Your task to perform on an android device: Open Yahoo.com Image 0: 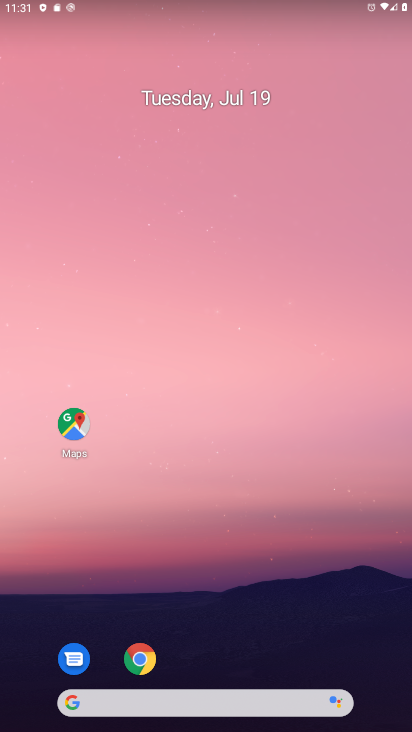
Step 0: press home button
Your task to perform on an android device: Open Yahoo.com Image 1: 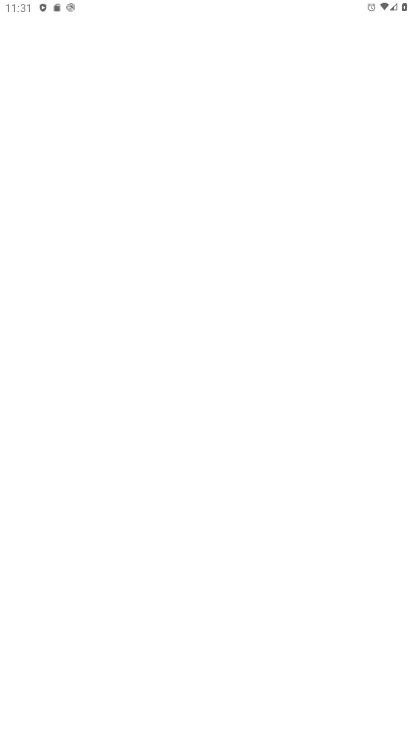
Step 1: drag from (220, 665) to (248, 321)
Your task to perform on an android device: Open Yahoo.com Image 2: 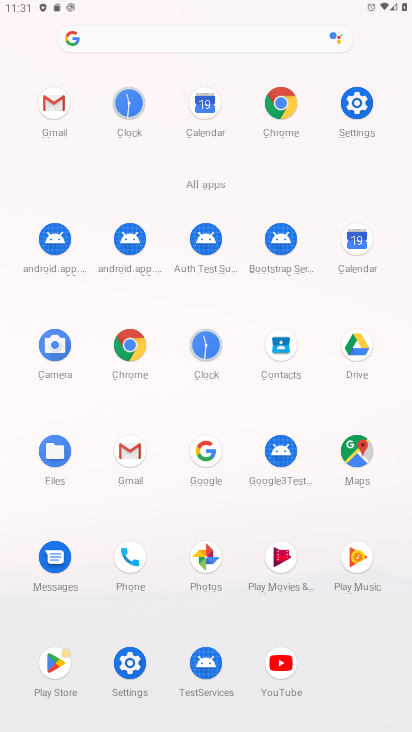
Step 2: click (126, 341)
Your task to perform on an android device: Open Yahoo.com Image 3: 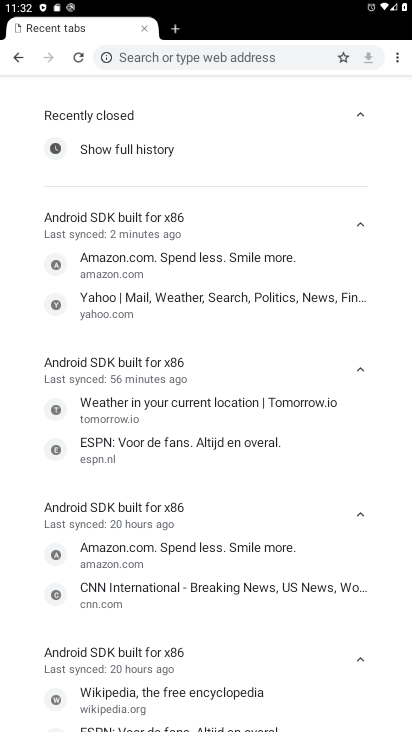
Step 3: click (178, 25)
Your task to perform on an android device: Open Yahoo.com Image 4: 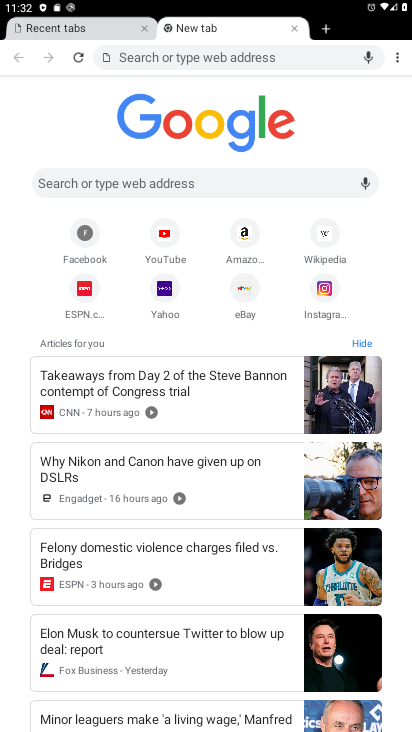
Step 4: click (164, 284)
Your task to perform on an android device: Open Yahoo.com Image 5: 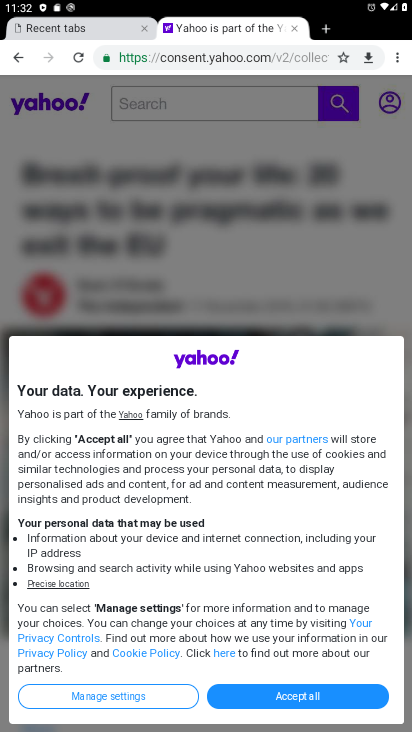
Step 5: click (303, 691)
Your task to perform on an android device: Open Yahoo.com Image 6: 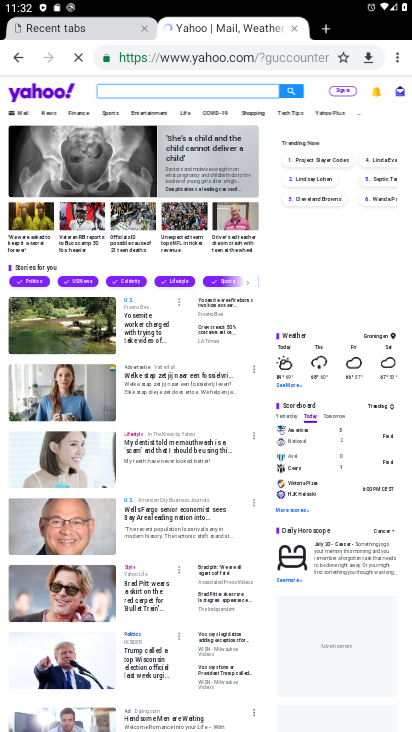
Step 6: task complete